Your task to perform on an android device: Check the weather Image 0: 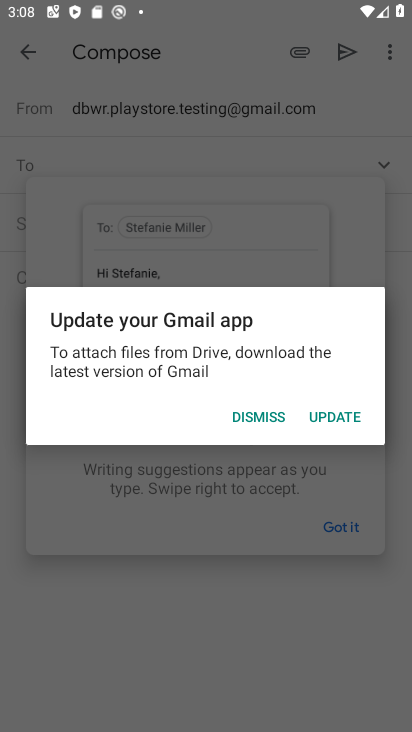
Step 0: press home button
Your task to perform on an android device: Check the weather Image 1: 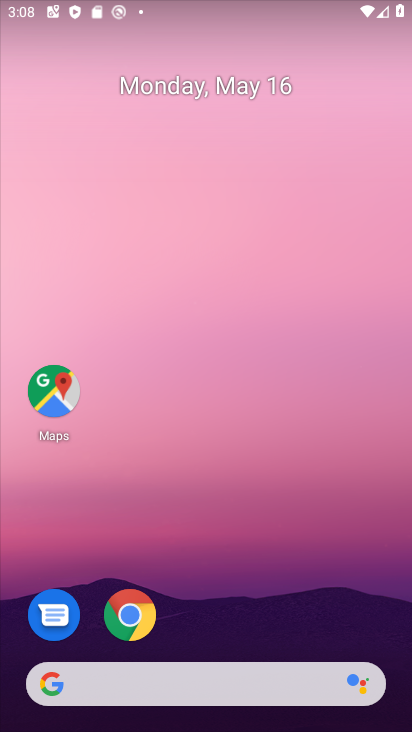
Step 1: click (217, 695)
Your task to perform on an android device: Check the weather Image 2: 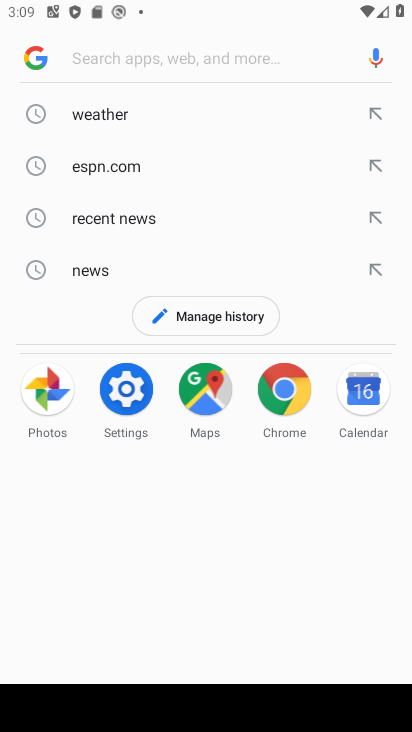
Step 2: click (54, 107)
Your task to perform on an android device: Check the weather Image 3: 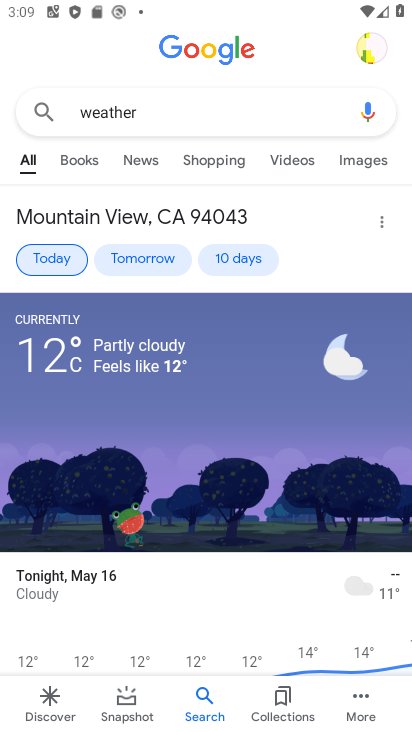
Step 3: click (48, 259)
Your task to perform on an android device: Check the weather Image 4: 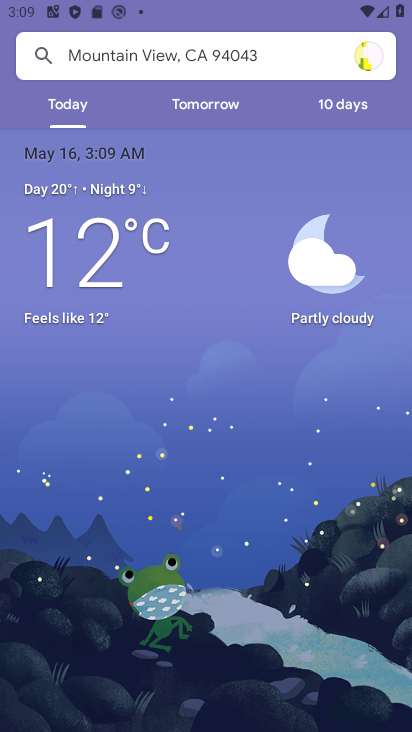
Step 4: task complete